Your task to perform on an android device: turn notification dots on Image 0: 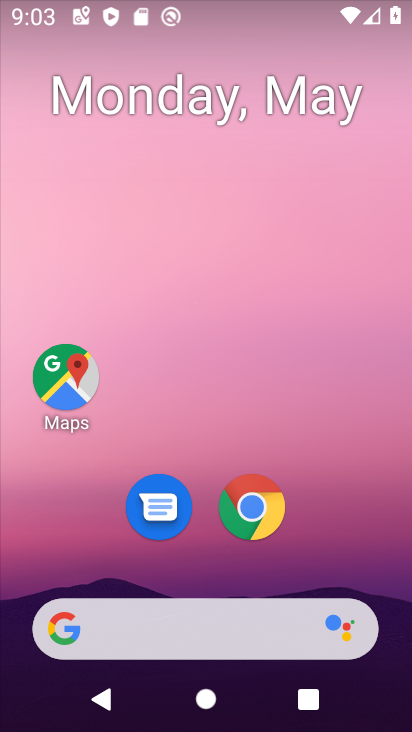
Step 0: drag from (198, 560) to (238, 5)
Your task to perform on an android device: turn notification dots on Image 1: 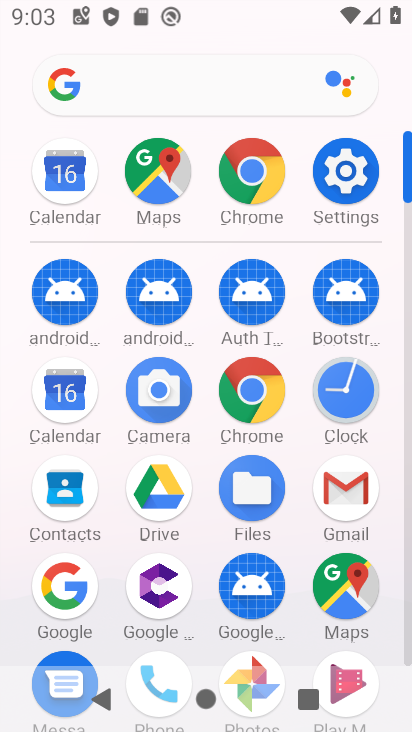
Step 1: click (346, 191)
Your task to perform on an android device: turn notification dots on Image 2: 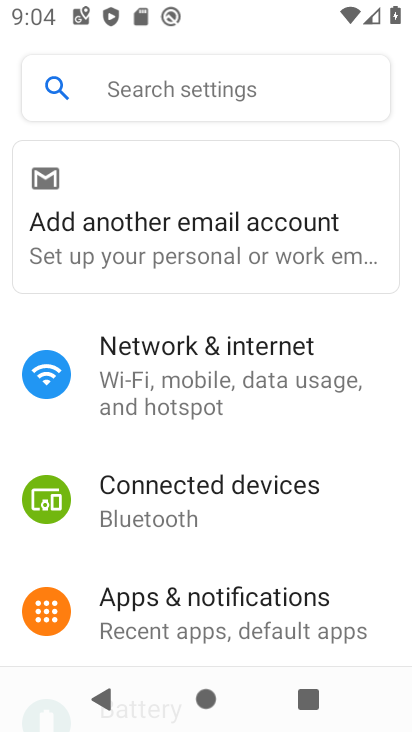
Step 2: click (244, 614)
Your task to perform on an android device: turn notification dots on Image 3: 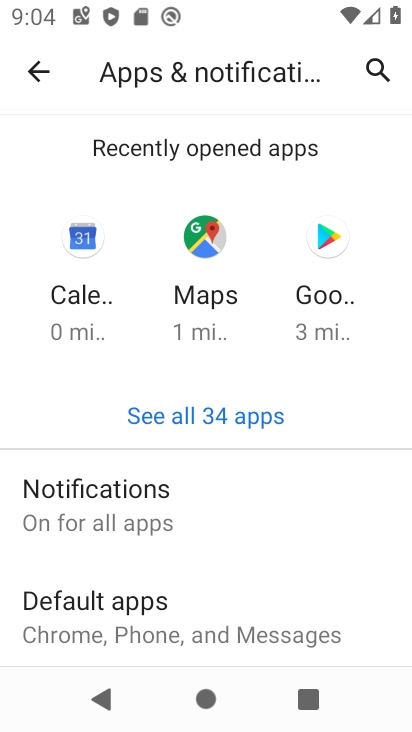
Step 3: click (130, 496)
Your task to perform on an android device: turn notification dots on Image 4: 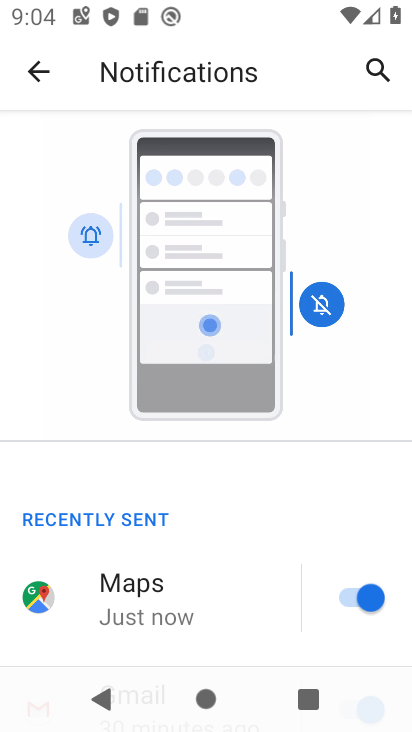
Step 4: drag from (207, 601) to (235, 207)
Your task to perform on an android device: turn notification dots on Image 5: 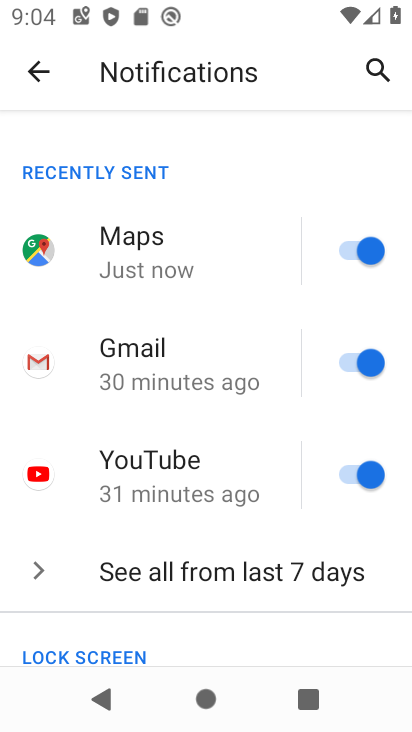
Step 5: drag from (187, 592) to (261, 186)
Your task to perform on an android device: turn notification dots on Image 6: 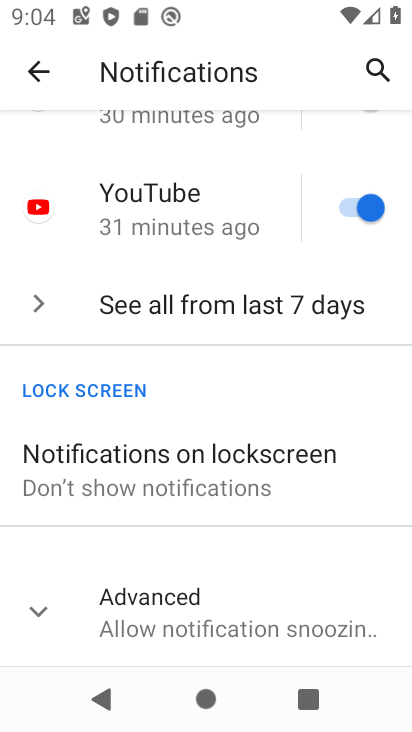
Step 6: click (163, 596)
Your task to perform on an android device: turn notification dots on Image 7: 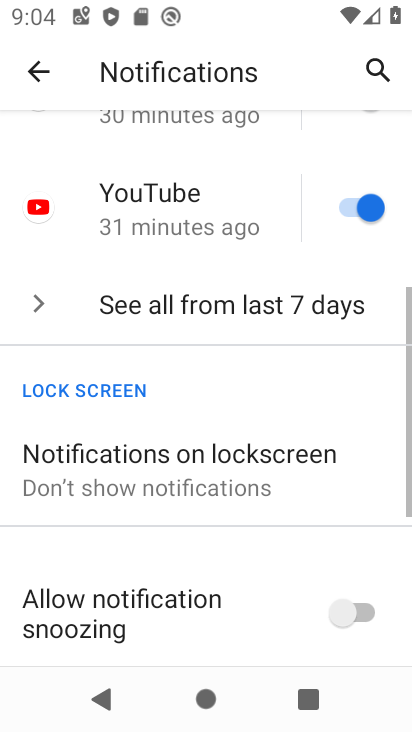
Step 7: task complete